Your task to perform on an android device: choose inbox layout in the gmail app Image 0: 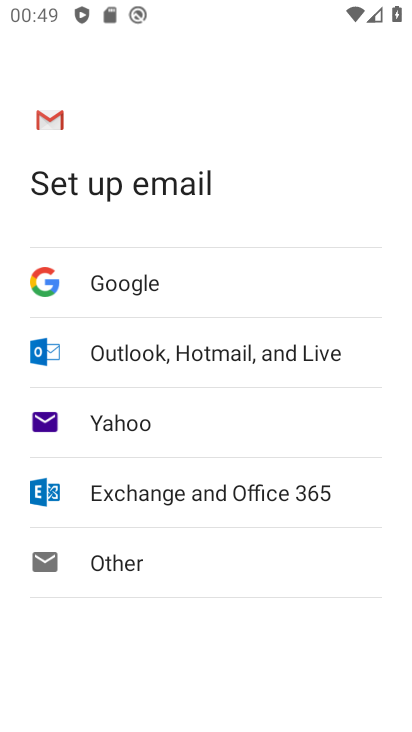
Step 0: press home button
Your task to perform on an android device: choose inbox layout in the gmail app Image 1: 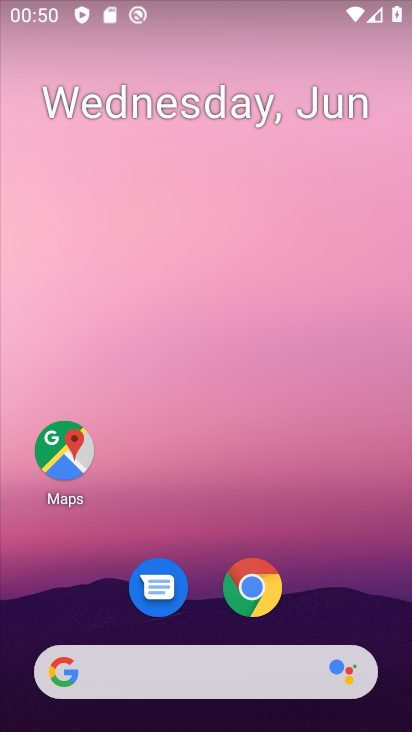
Step 1: drag from (329, 528) to (326, 7)
Your task to perform on an android device: choose inbox layout in the gmail app Image 2: 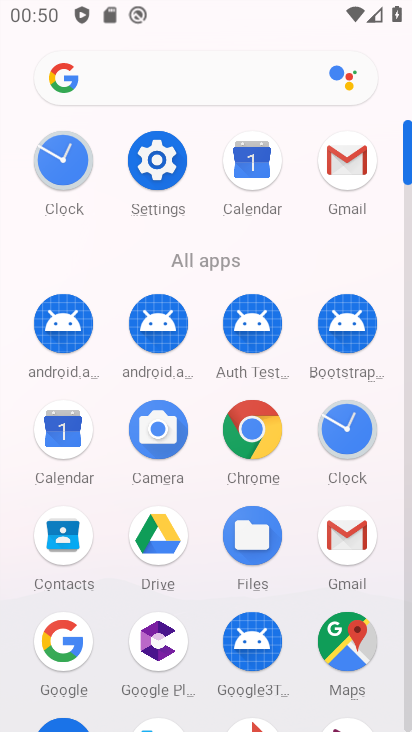
Step 2: click (359, 156)
Your task to perform on an android device: choose inbox layout in the gmail app Image 3: 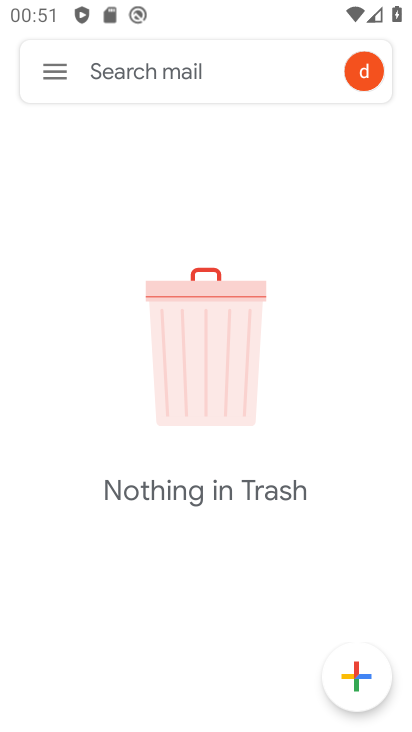
Step 3: click (49, 65)
Your task to perform on an android device: choose inbox layout in the gmail app Image 4: 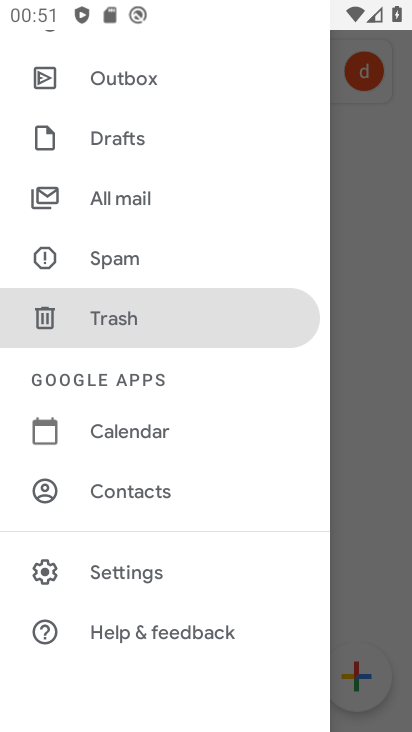
Step 4: click (122, 583)
Your task to perform on an android device: choose inbox layout in the gmail app Image 5: 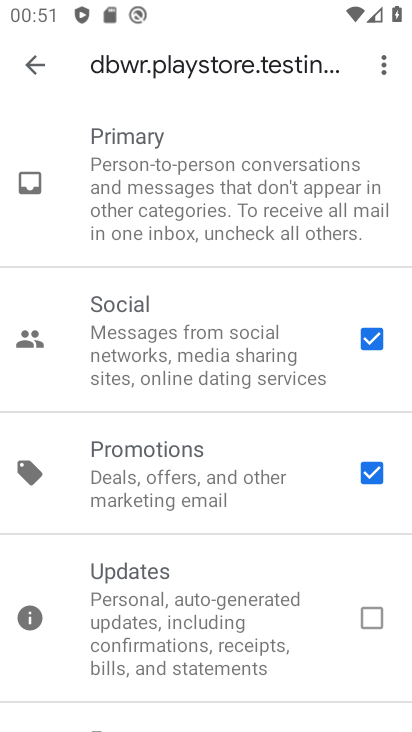
Step 5: click (33, 69)
Your task to perform on an android device: choose inbox layout in the gmail app Image 6: 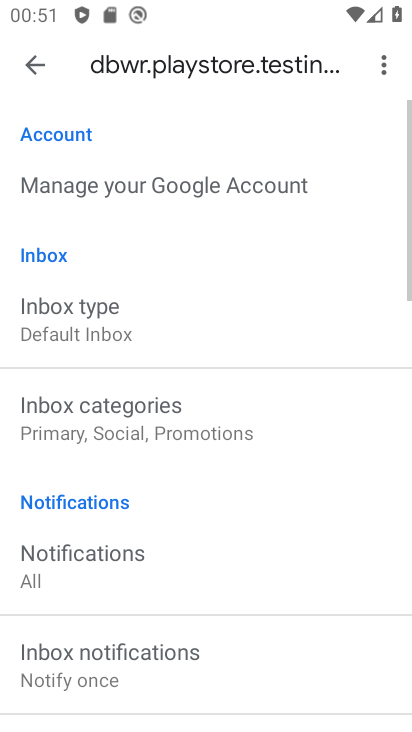
Step 6: click (110, 319)
Your task to perform on an android device: choose inbox layout in the gmail app Image 7: 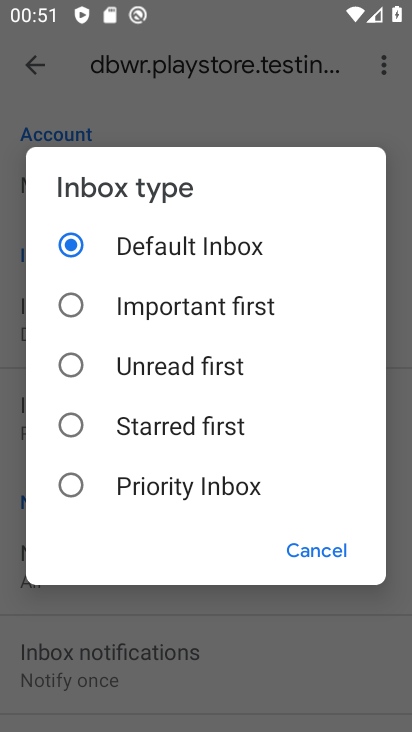
Step 7: task complete